Your task to perform on an android device: turn off notifications settings in the gmail app Image 0: 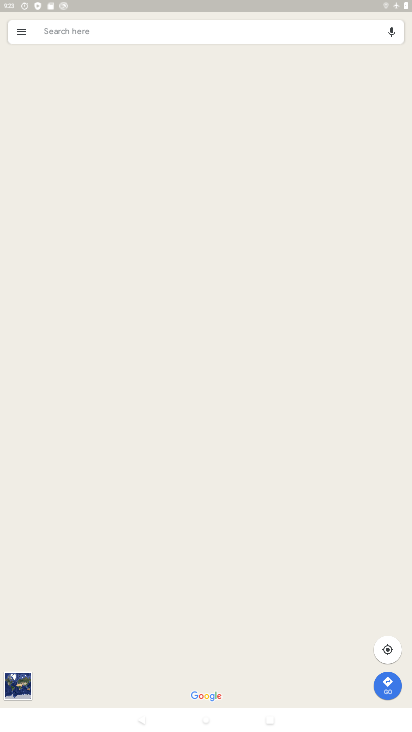
Step 0: press home button
Your task to perform on an android device: turn off notifications settings in the gmail app Image 1: 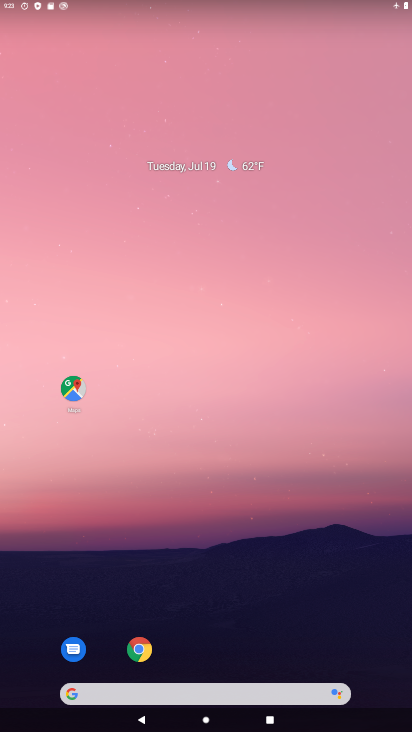
Step 1: drag from (257, 531) to (175, 2)
Your task to perform on an android device: turn off notifications settings in the gmail app Image 2: 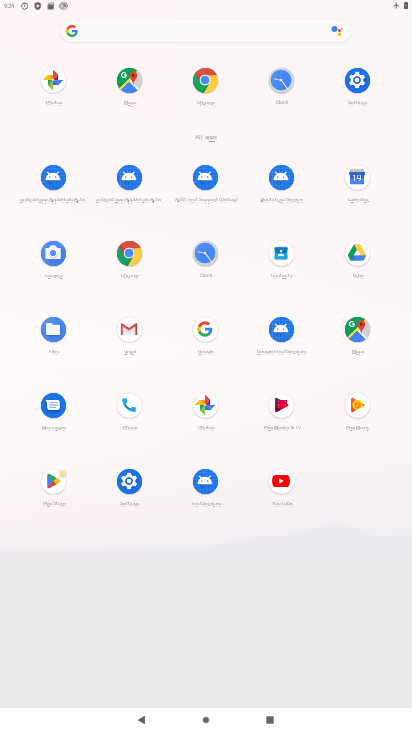
Step 2: click (134, 332)
Your task to perform on an android device: turn off notifications settings in the gmail app Image 3: 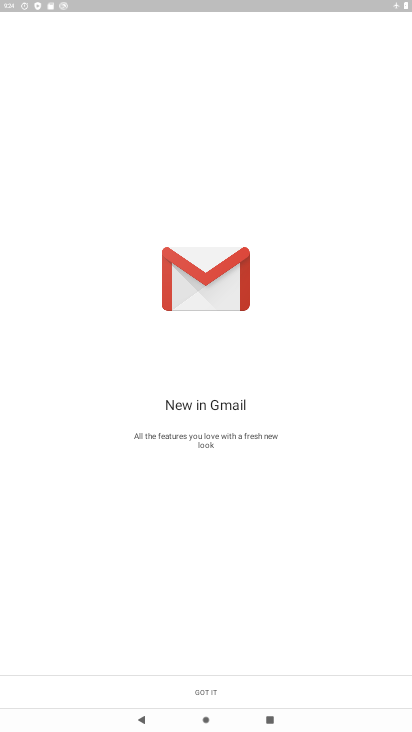
Step 3: click (200, 683)
Your task to perform on an android device: turn off notifications settings in the gmail app Image 4: 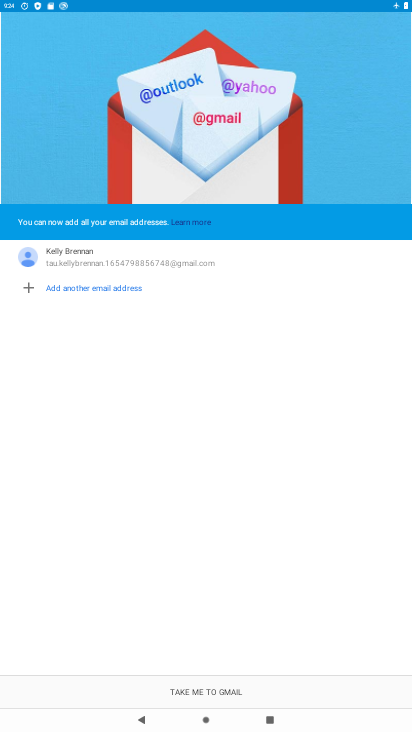
Step 4: click (154, 687)
Your task to perform on an android device: turn off notifications settings in the gmail app Image 5: 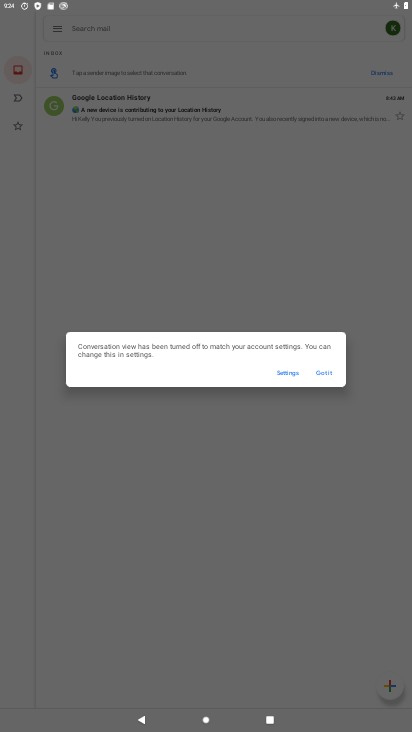
Step 5: click (281, 371)
Your task to perform on an android device: turn off notifications settings in the gmail app Image 6: 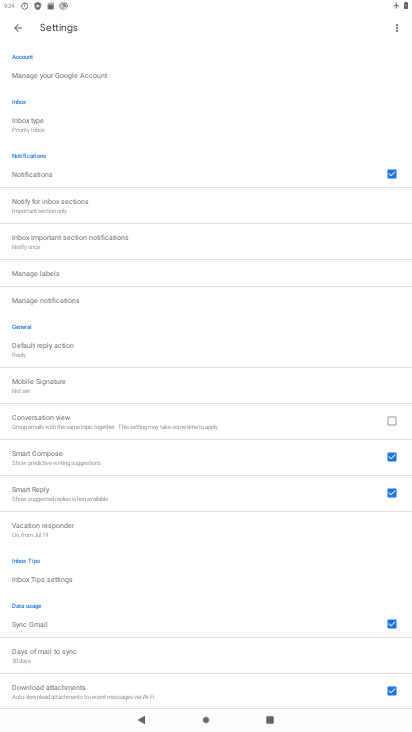
Step 6: click (83, 300)
Your task to perform on an android device: turn off notifications settings in the gmail app Image 7: 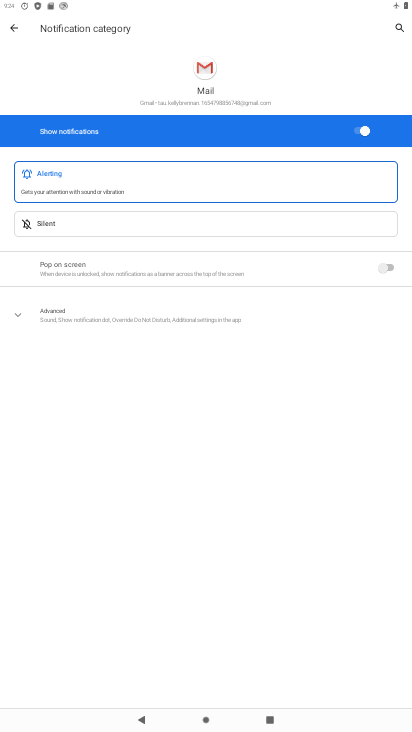
Step 7: click (365, 136)
Your task to perform on an android device: turn off notifications settings in the gmail app Image 8: 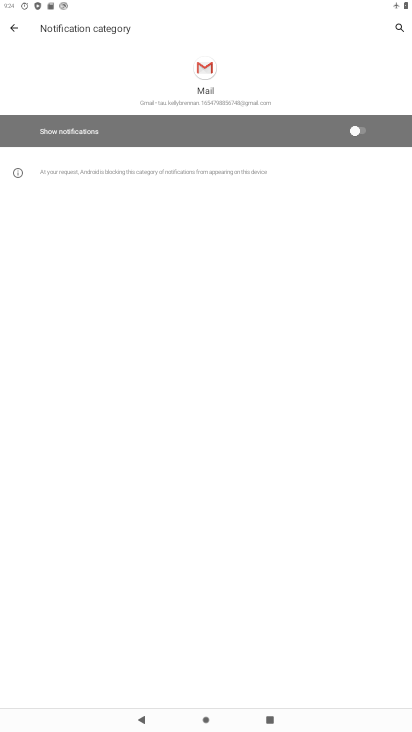
Step 8: click (14, 23)
Your task to perform on an android device: turn off notifications settings in the gmail app Image 9: 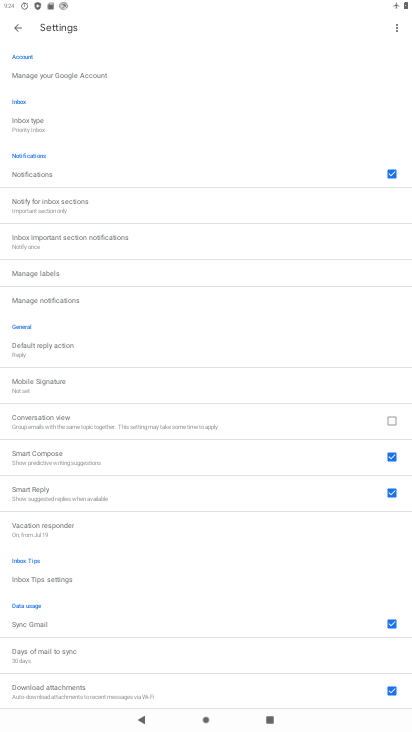
Step 9: click (394, 178)
Your task to perform on an android device: turn off notifications settings in the gmail app Image 10: 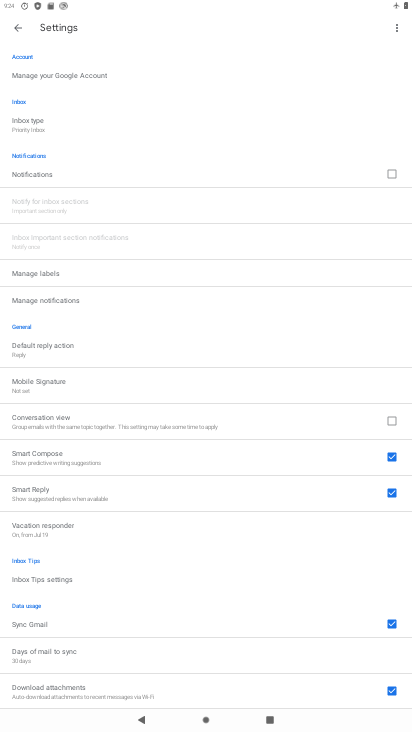
Step 10: task complete